Your task to perform on an android device: check out phone information Image 0: 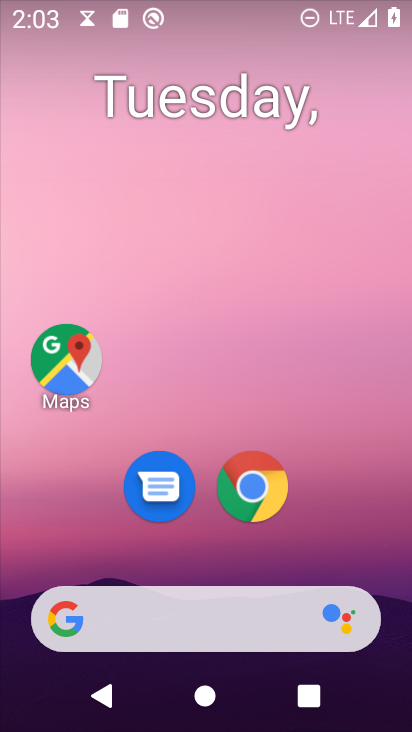
Step 0: drag from (211, 559) to (225, 171)
Your task to perform on an android device: check out phone information Image 1: 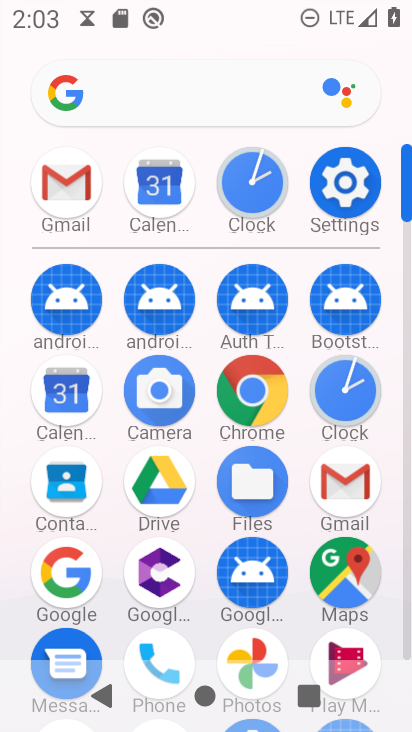
Step 1: drag from (207, 250) to (181, 22)
Your task to perform on an android device: check out phone information Image 2: 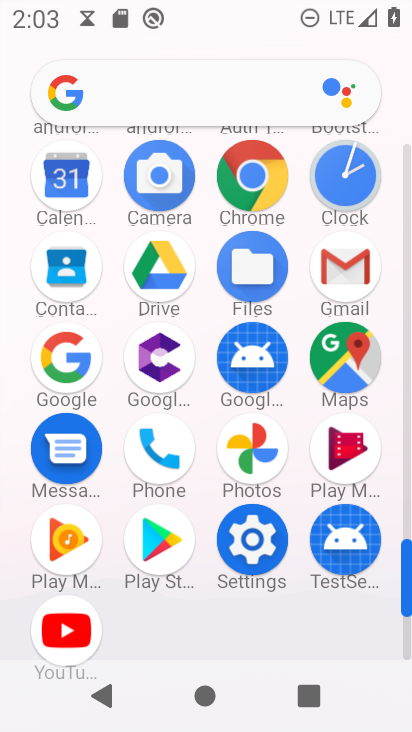
Step 2: click (267, 555)
Your task to perform on an android device: check out phone information Image 3: 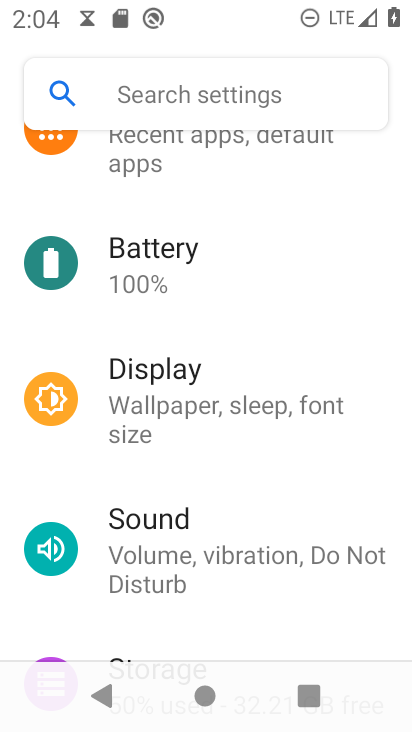
Step 3: drag from (145, 600) to (226, 2)
Your task to perform on an android device: check out phone information Image 4: 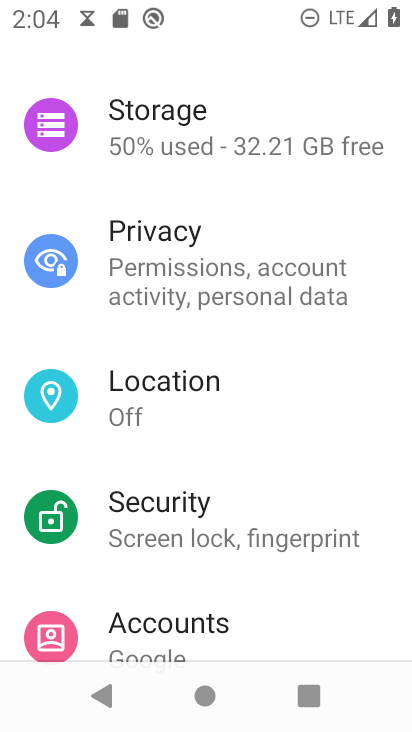
Step 4: drag from (267, 606) to (243, 0)
Your task to perform on an android device: check out phone information Image 5: 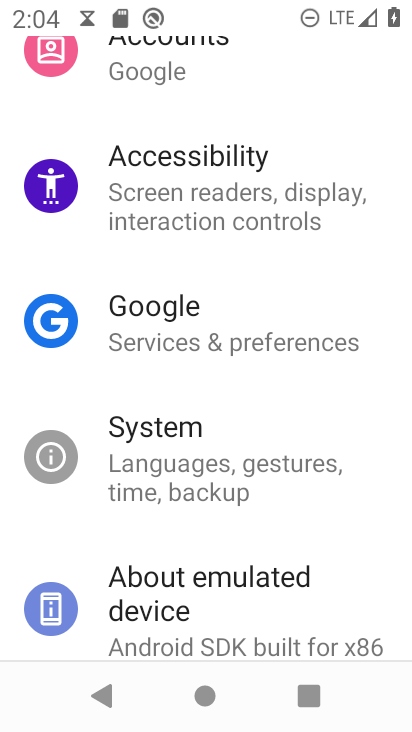
Step 5: click (245, 591)
Your task to perform on an android device: check out phone information Image 6: 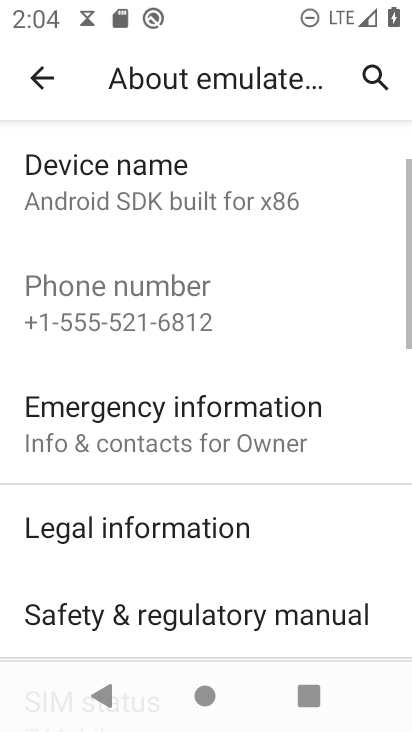
Step 6: task complete